Your task to perform on an android device: Find coffee shops on Maps Image 0: 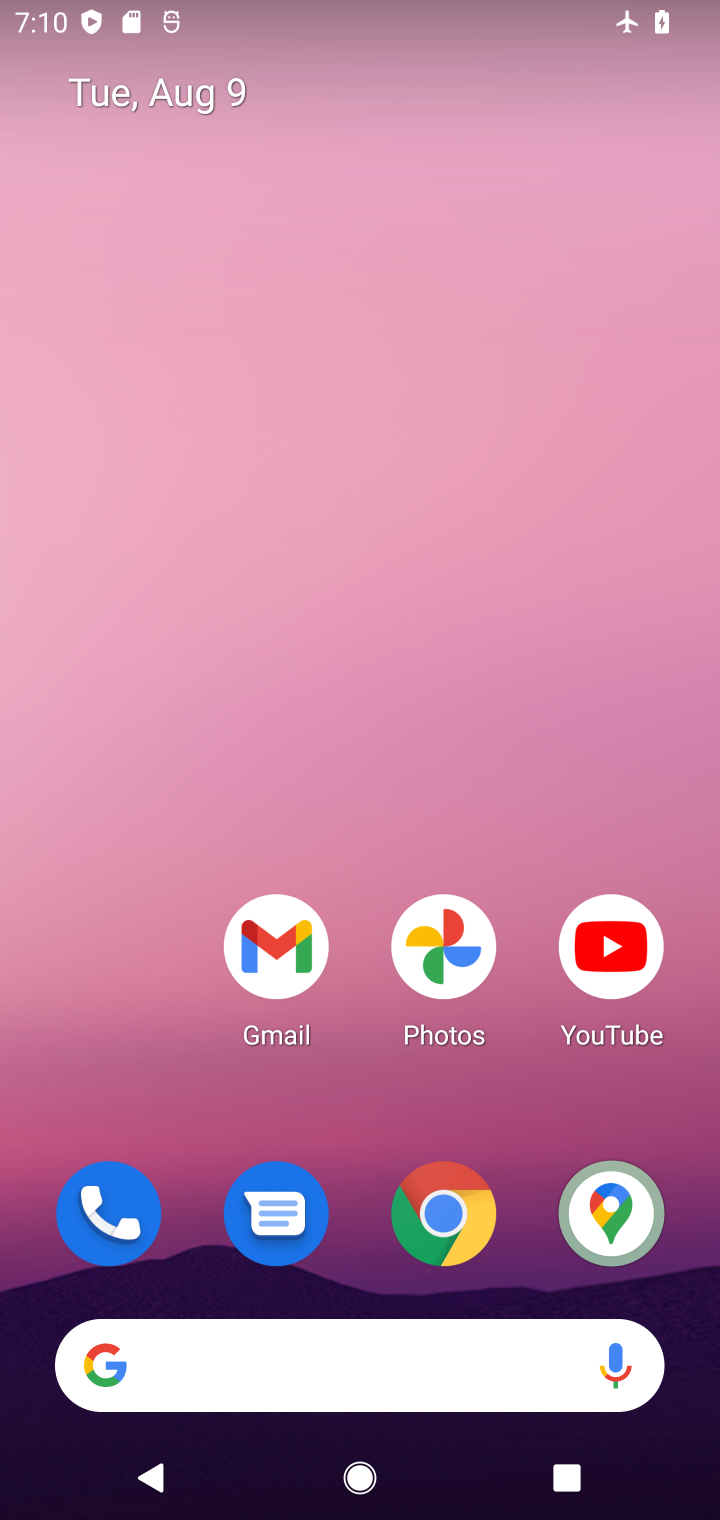
Step 0: click (632, 1210)
Your task to perform on an android device: Find coffee shops on Maps Image 1: 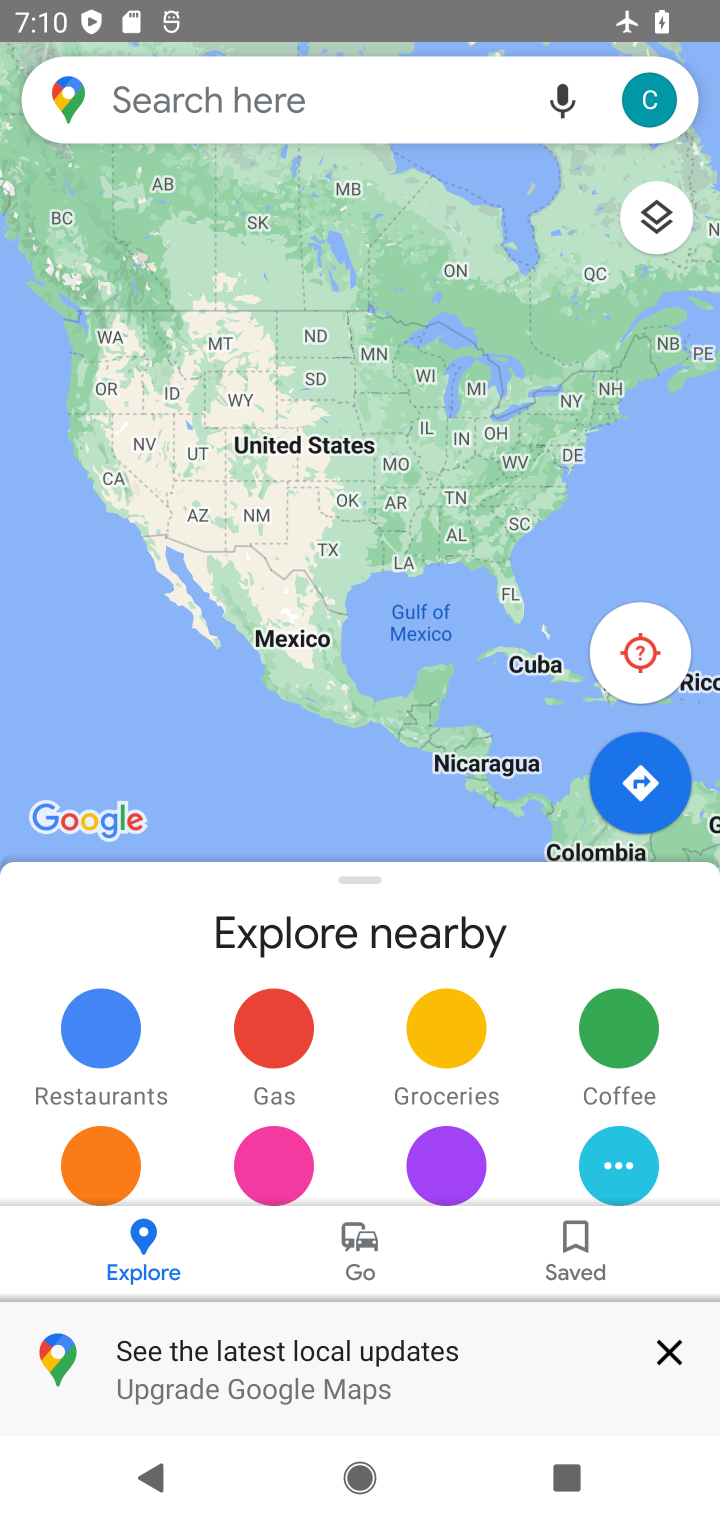
Step 1: click (251, 84)
Your task to perform on an android device: Find coffee shops on Maps Image 2: 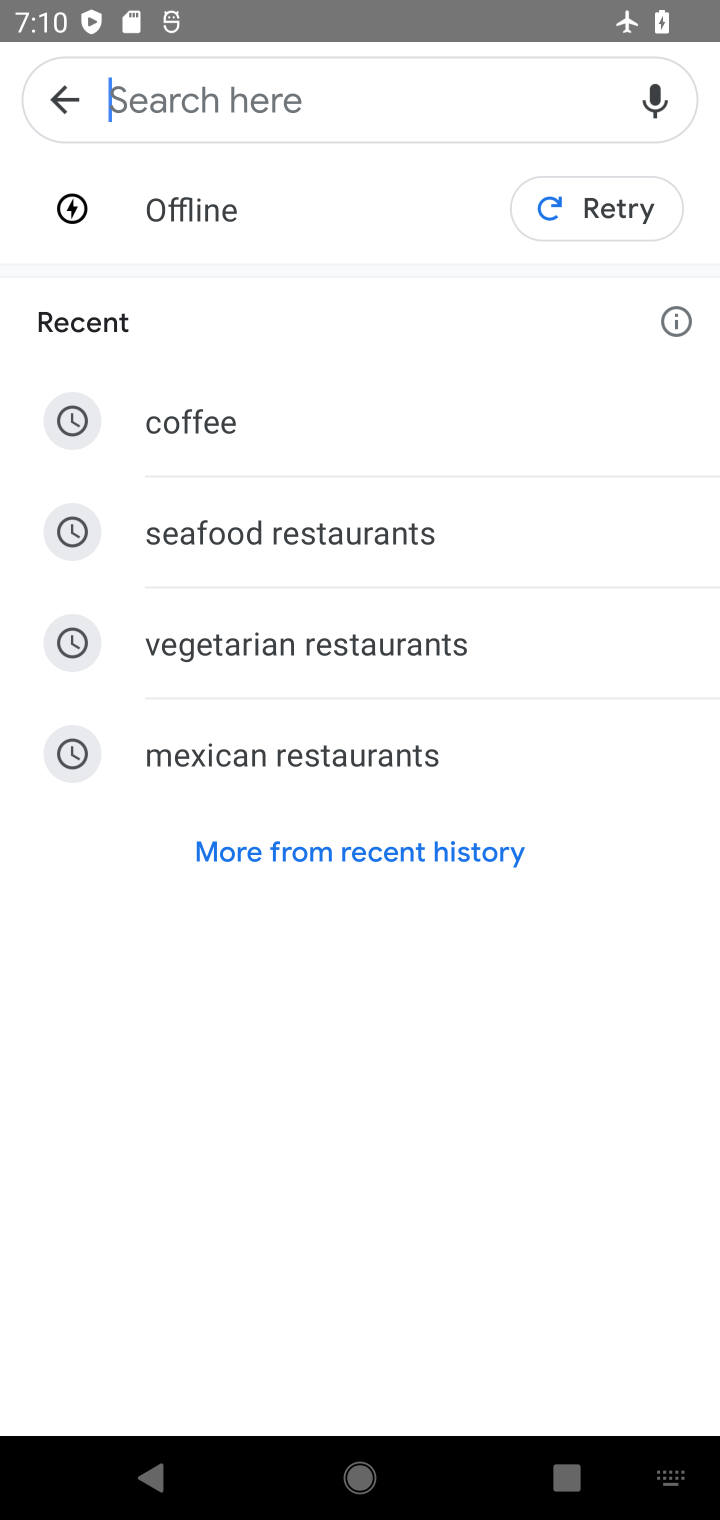
Step 2: click (180, 396)
Your task to perform on an android device: Find coffee shops on Maps Image 3: 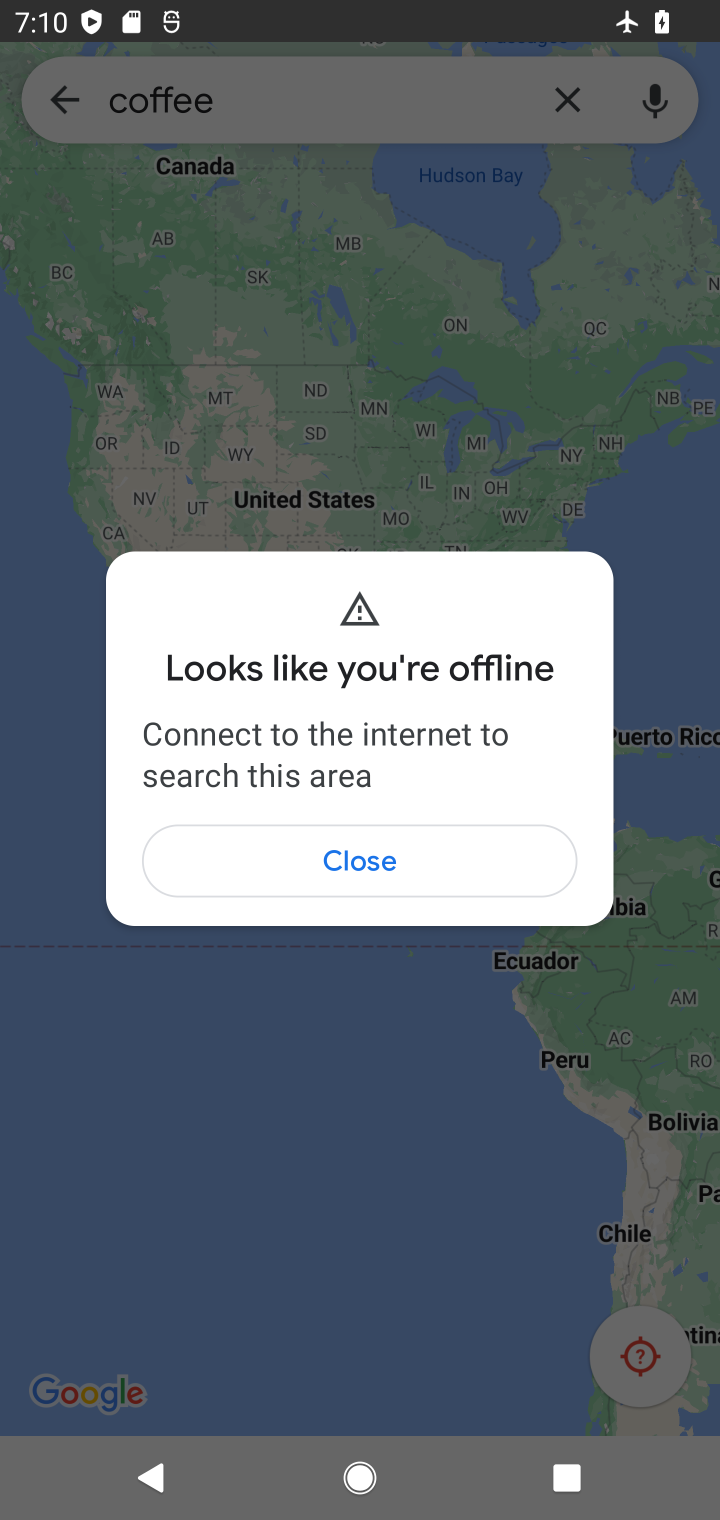
Step 3: click (330, 845)
Your task to perform on an android device: Find coffee shops on Maps Image 4: 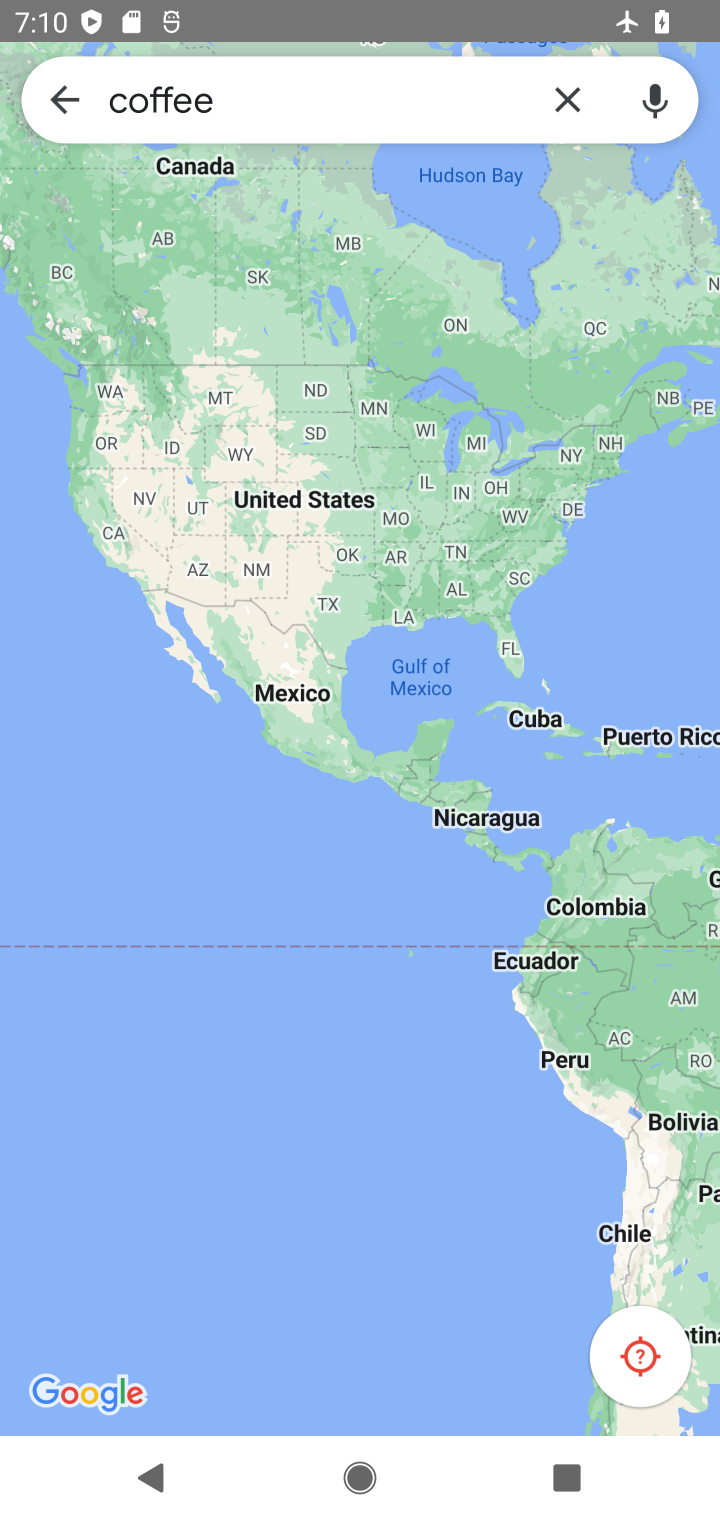
Step 4: task complete